Your task to perform on an android device: empty trash in google photos Image 0: 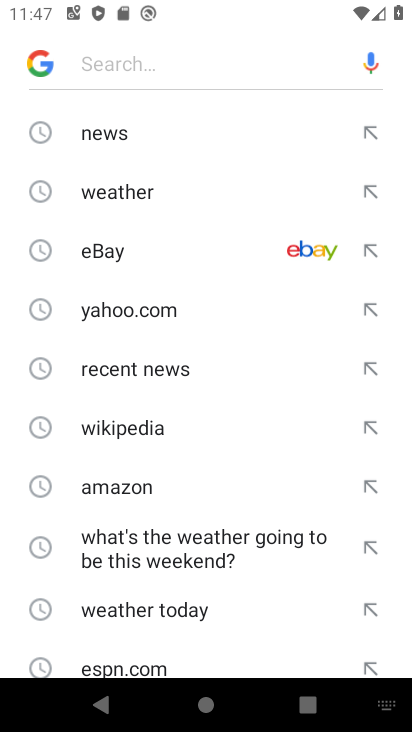
Step 0: press home button
Your task to perform on an android device: empty trash in google photos Image 1: 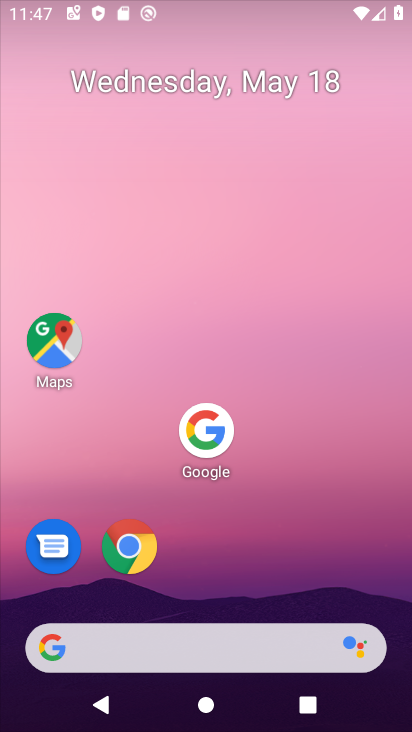
Step 1: drag from (244, 553) to (247, 53)
Your task to perform on an android device: empty trash in google photos Image 2: 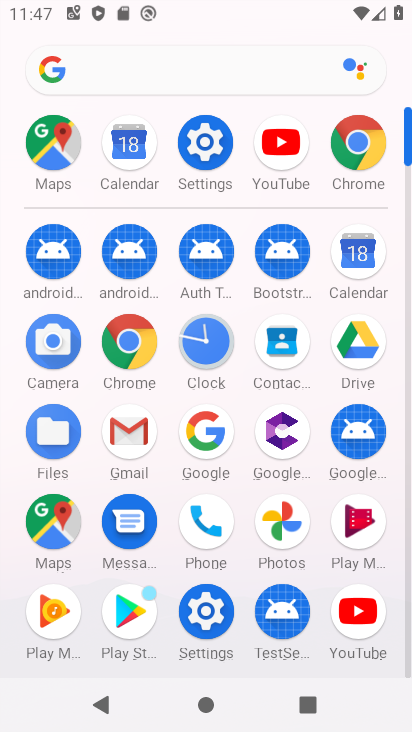
Step 2: click (281, 529)
Your task to perform on an android device: empty trash in google photos Image 3: 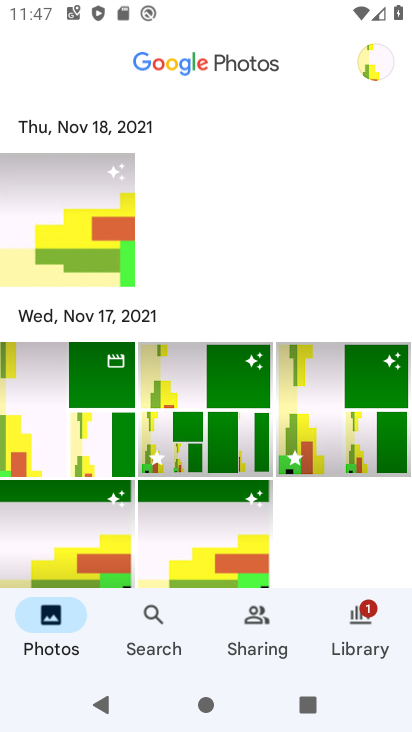
Step 3: click (378, 58)
Your task to perform on an android device: empty trash in google photos Image 4: 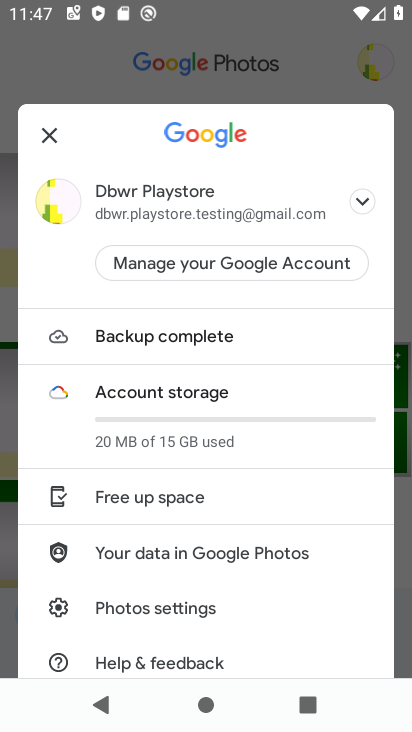
Step 4: click (273, 59)
Your task to perform on an android device: empty trash in google photos Image 5: 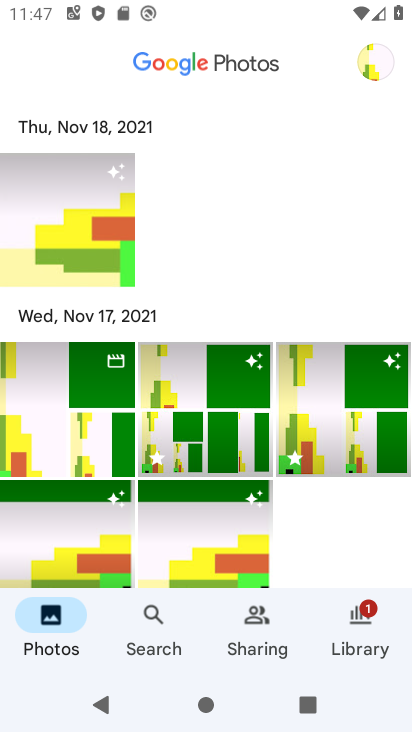
Step 5: click (33, 50)
Your task to perform on an android device: empty trash in google photos Image 6: 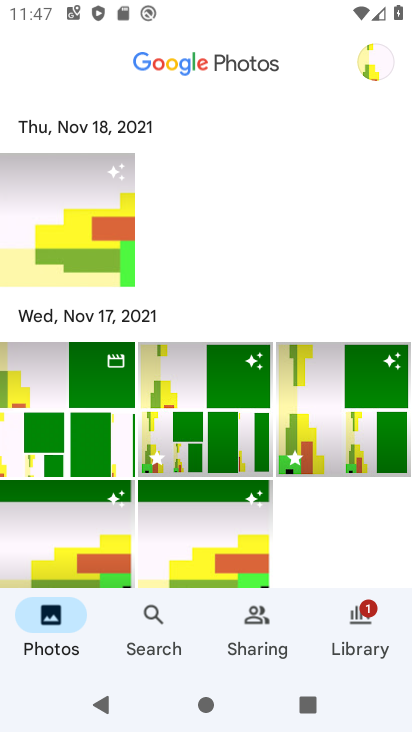
Step 6: task complete